Your task to perform on an android device: View the shopping cart on amazon.com. Add acer nitro to the cart on amazon.com Image 0: 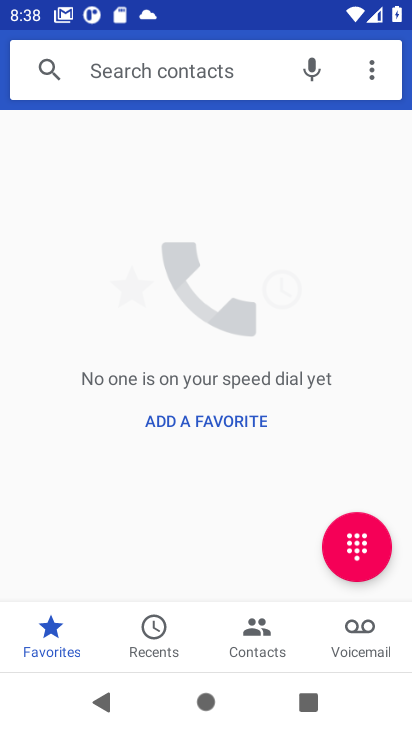
Step 0: press home button
Your task to perform on an android device: View the shopping cart on amazon.com. Add acer nitro to the cart on amazon.com Image 1: 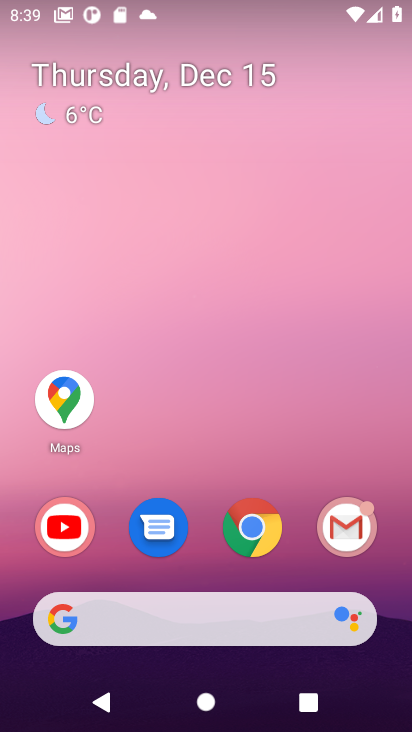
Step 1: click (235, 555)
Your task to perform on an android device: View the shopping cart on amazon.com. Add acer nitro to the cart on amazon.com Image 2: 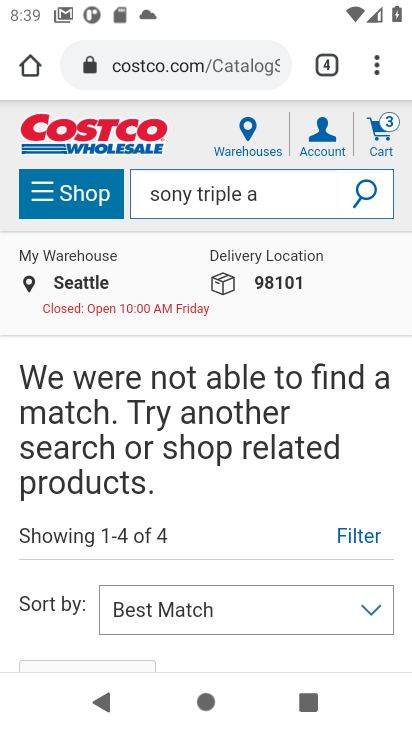
Step 2: click (122, 66)
Your task to perform on an android device: View the shopping cart on amazon.com. Add acer nitro to the cart on amazon.com Image 3: 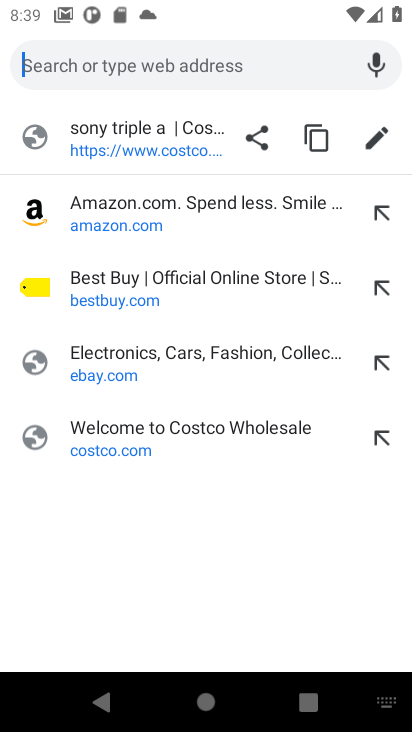
Step 3: click (240, 193)
Your task to perform on an android device: View the shopping cart on amazon.com. Add acer nitro to the cart on amazon.com Image 4: 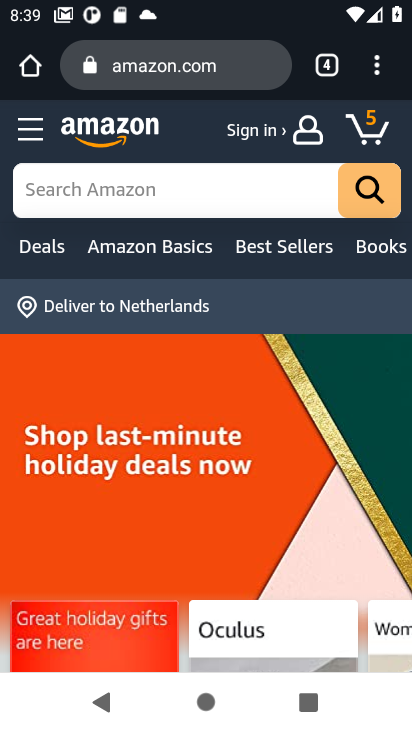
Step 4: click (176, 191)
Your task to perform on an android device: View the shopping cart on amazon.com. Add acer nitro to the cart on amazon.com Image 5: 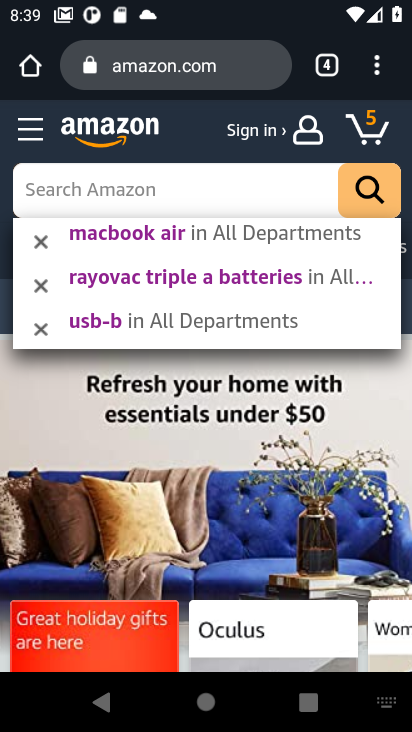
Step 5: type "acer nitro"
Your task to perform on an android device: View the shopping cart on amazon.com. Add acer nitro to the cart on amazon.com Image 6: 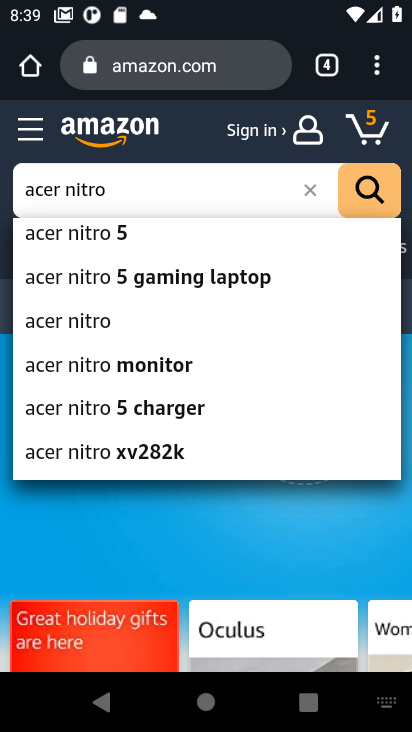
Step 6: click (51, 330)
Your task to perform on an android device: View the shopping cart on amazon.com. Add acer nitro to the cart on amazon.com Image 7: 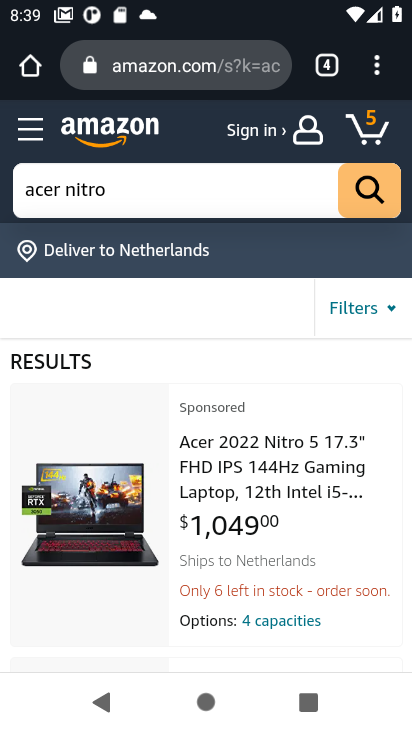
Step 7: click (232, 475)
Your task to perform on an android device: View the shopping cart on amazon.com. Add acer nitro to the cart on amazon.com Image 8: 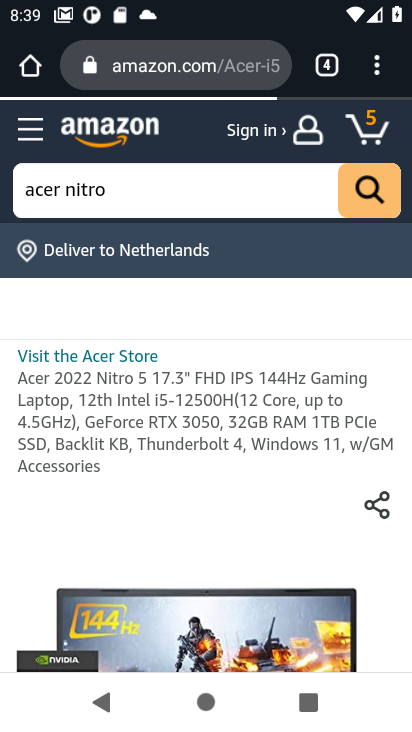
Step 8: drag from (194, 581) to (196, 242)
Your task to perform on an android device: View the shopping cart on amazon.com. Add acer nitro to the cart on amazon.com Image 9: 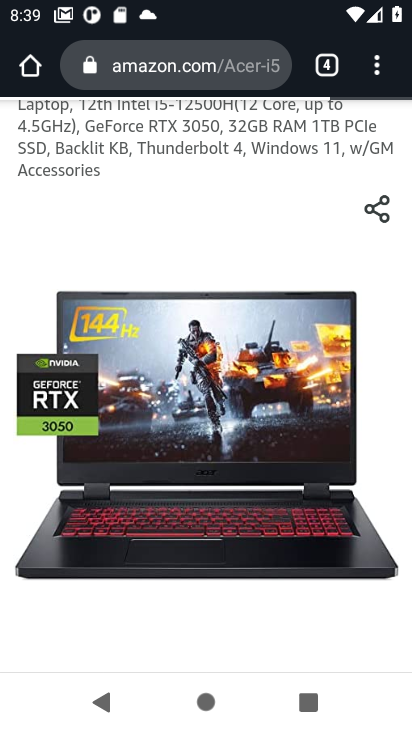
Step 9: drag from (188, 609) to (181, 208)
Your task to perform on an android device: View the shopping cart on amazon.com. Add acer nitro to the cart on amazon.com Image 10: 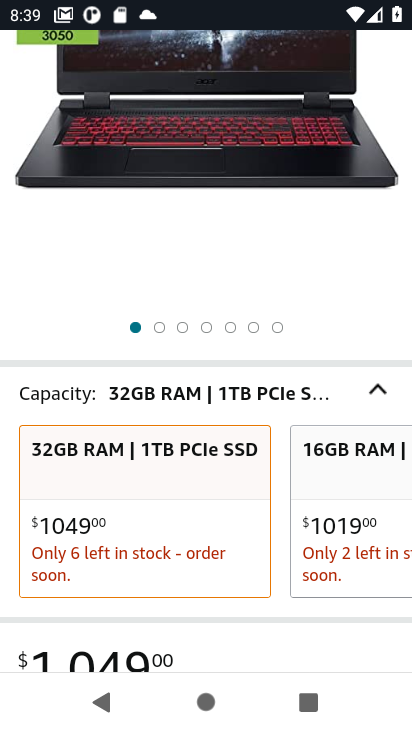
Step 10: drag from (190, 637) to (203, 192)
Your task to perform on an android device: View the shopping cart on amazon.com. Add acer nitro to the cart on amazon.com Image 11: 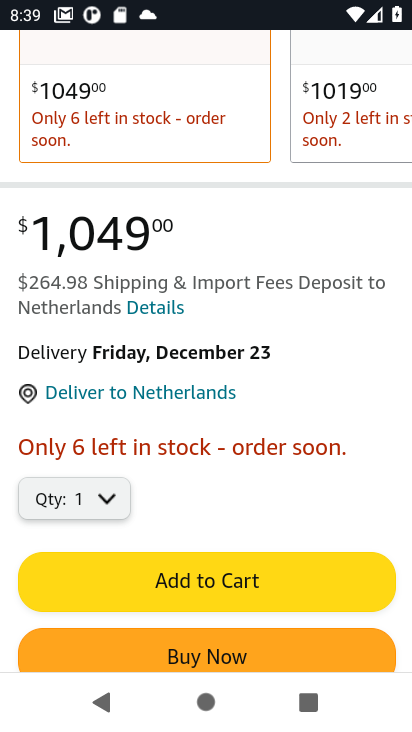
Step 11: click (187, 584)
Your task to perform on an android device: View the shopping cart on amazon.com. Add acer nitro to the cart on amazon.com Image 12: 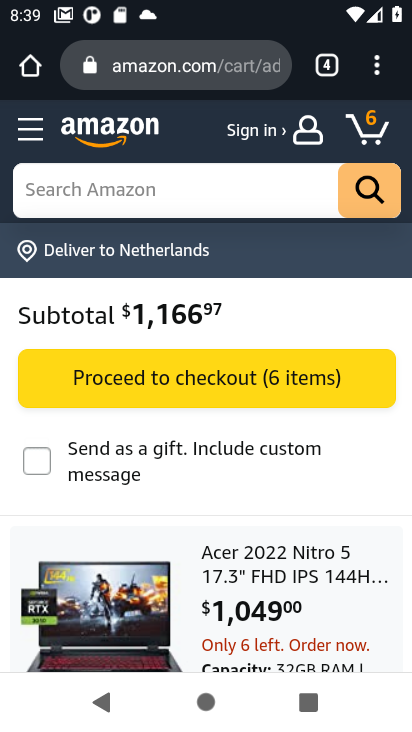
Step 12: task complete